Your task to perform on an android device: Open internet settings Image 0: 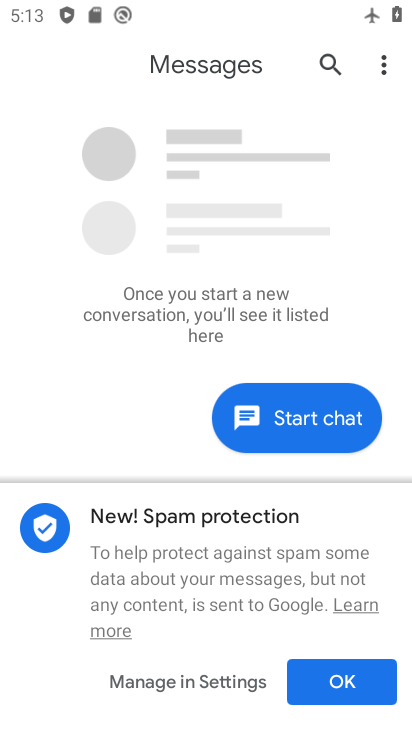
Step 0: press home button
Your task to perform on an android device: Open internet settings Image 1: 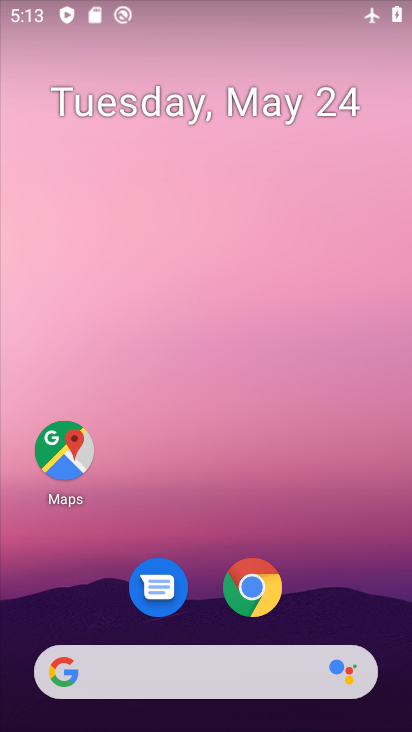
Step 1: drag from (353, 592) to (263, 123)
Your task to perform on an android device: Open internet settings Image 2: 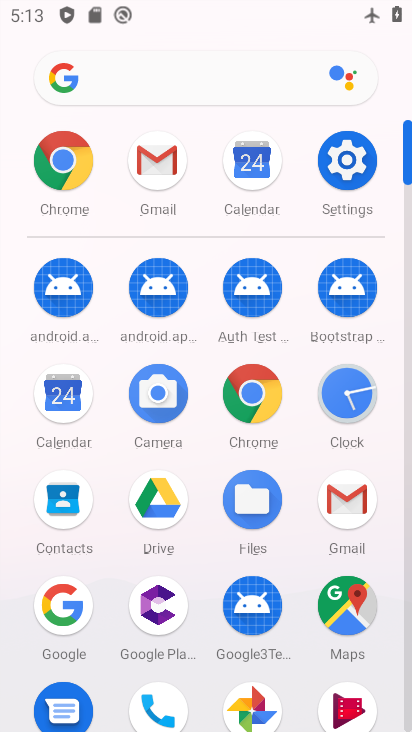
Step 2: click (355, 161)
Your task to perform on an android device: Open internet settings Image 3: 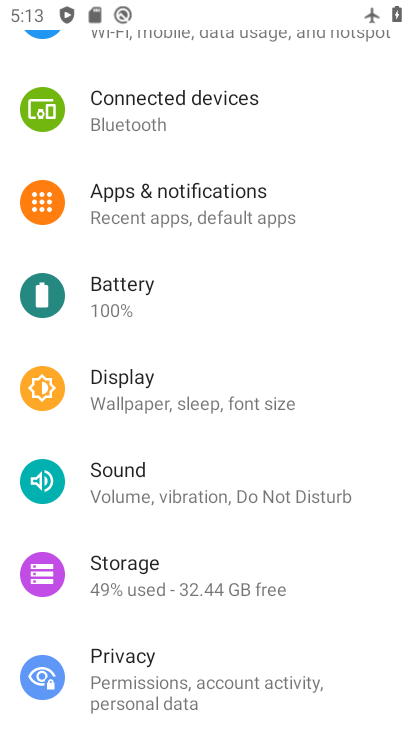
Step 3: click (236, 44)
Your task to perform on an android device: Open internet settings Image 4: 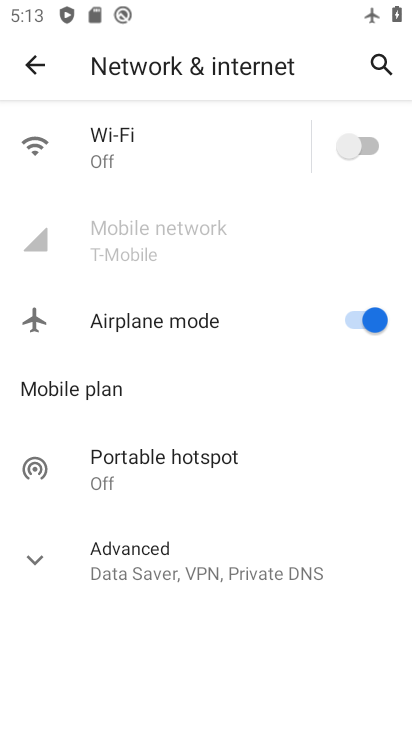
Step 4: task complete